Your task to perform on an android device: turn notification dots off Image 0: 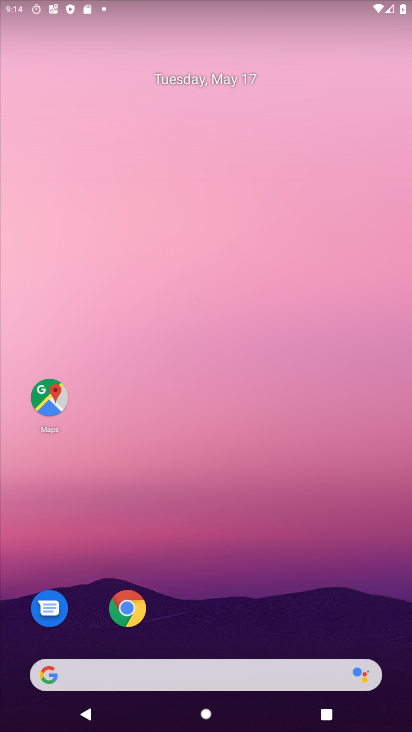
Step 0: drag from (332, 574) to (342, 58)
Your task to perform on an android device: turn notification dots off Image 1: 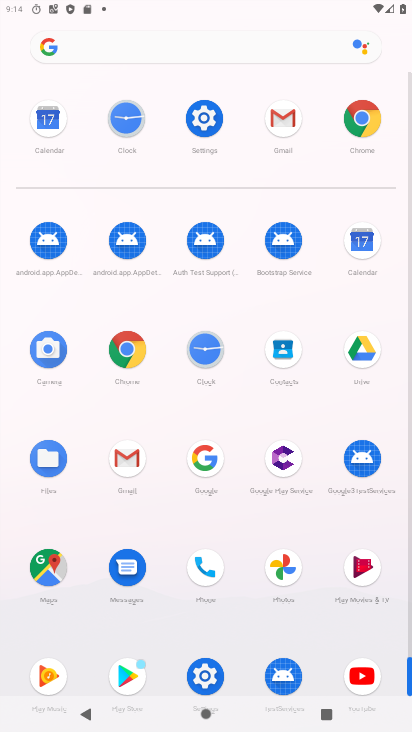
Step 1: click (214, 108)
Your task to perform on an android device: turn notification dots off Image 2: 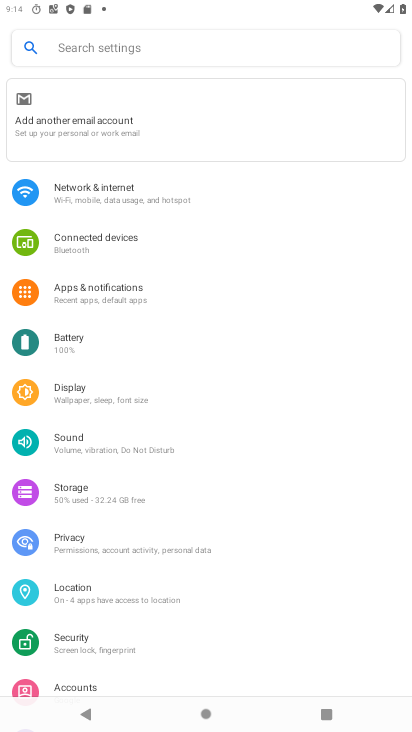
Step 2: drag from (231, 647) to (243, 232)
Your task to perform on an android device: turn notification dots off Image 3: 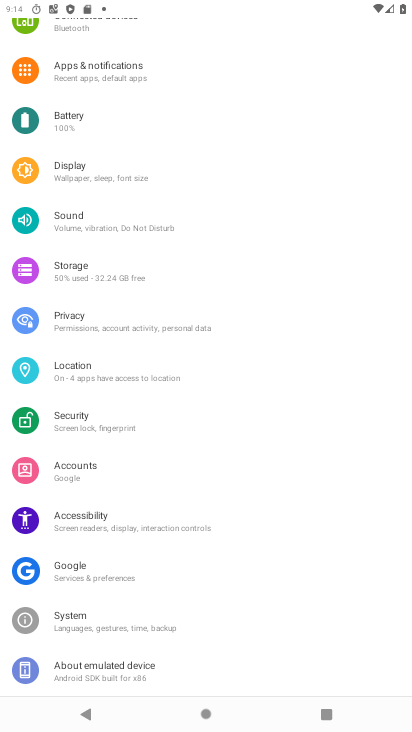
Step 3: drag from (190, 459) to (298, 179)
Your task to perform on an android device: turn notification dots off Image 4: 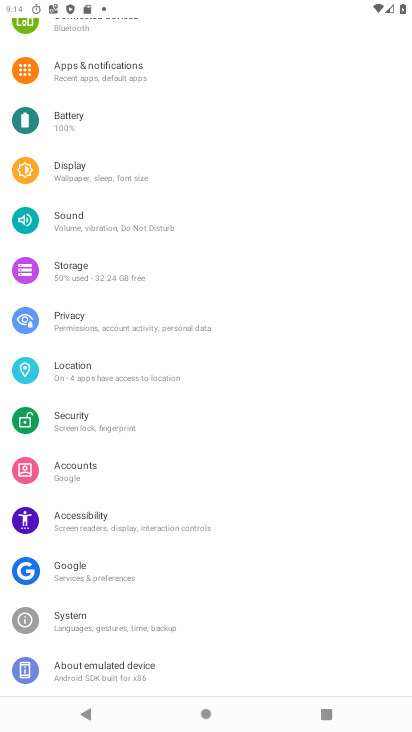
Step 4: drag from (298, 179) to (302, 430)
Your task to perform on an android device: turn notification dots off Image 5: 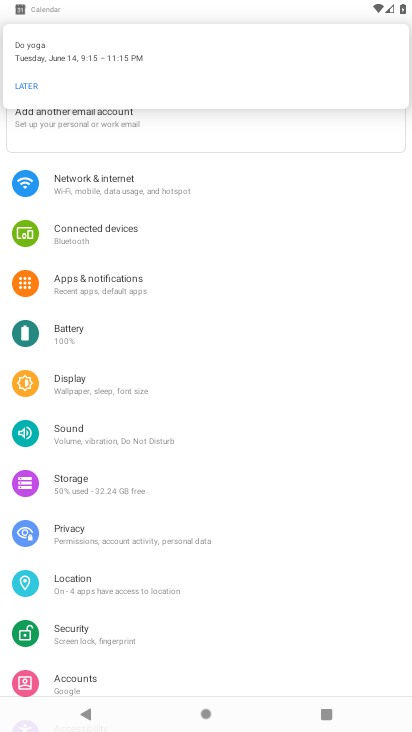
Step 5: drag from (235, 644) to (247, 264)
Your task to perform on an android device: turn notification dots off Image 6: 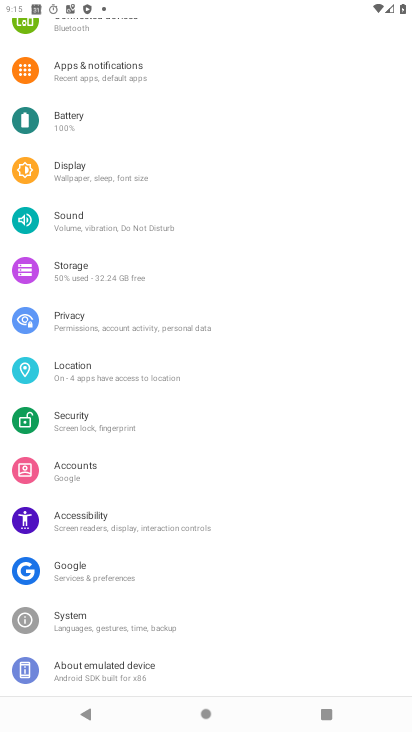
Step 6: drag from (235, 249) to (236, 471)
Your task to perform on an android device: turn notification dots off Image 7: 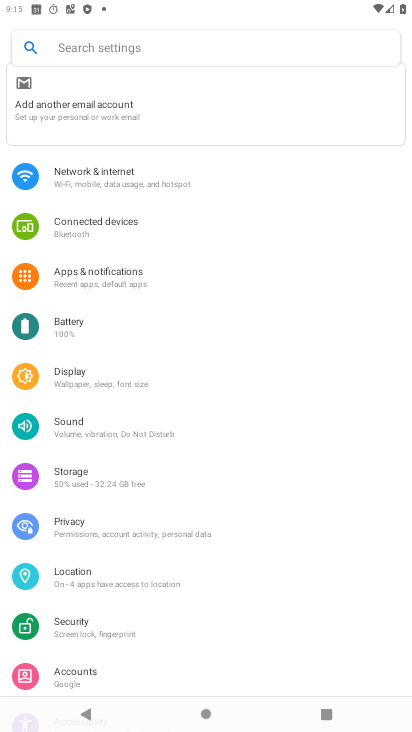
Step 7: click (74, 260)
Your task to perform on an android device: turn notification dots off Image 8: 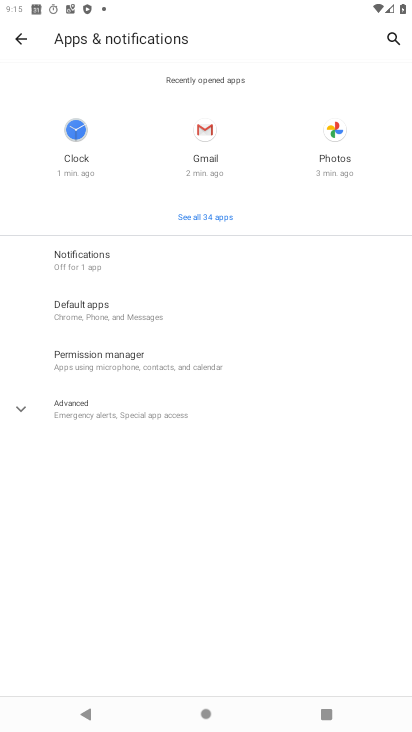
Step 8: click (92, 262)
Your task to perform on an android device: turn notification dots off Image 9: 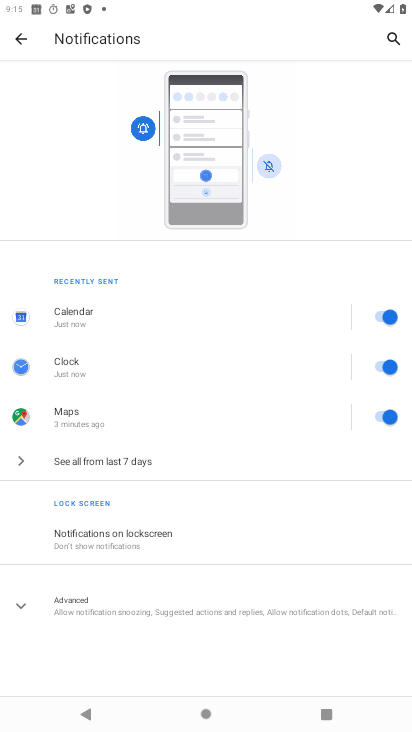
Step 9: click (130, 593)
Your task to perform on an android device: turn notification dots off Image 10: 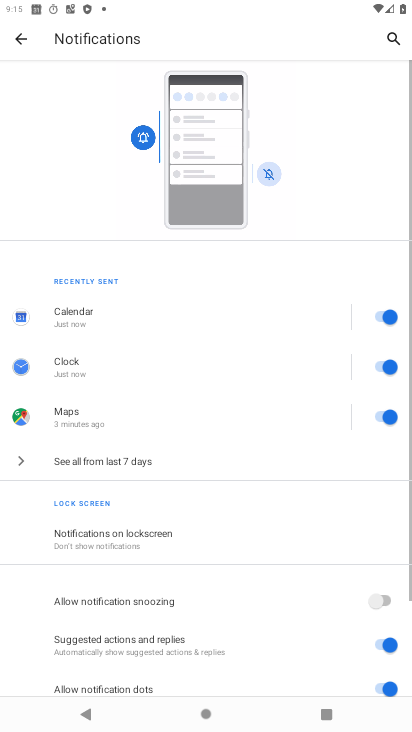
Step 10: drag from (139, 649) to (134, 311)
Your task to perform on an android device: turn notification dots off Image 11: 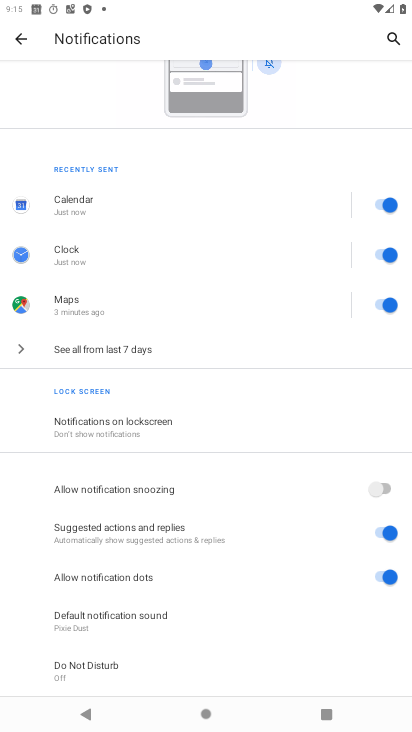
Step 11: click (382, 577)
Your task to perform on an android device: turn notification dots off Image 12: 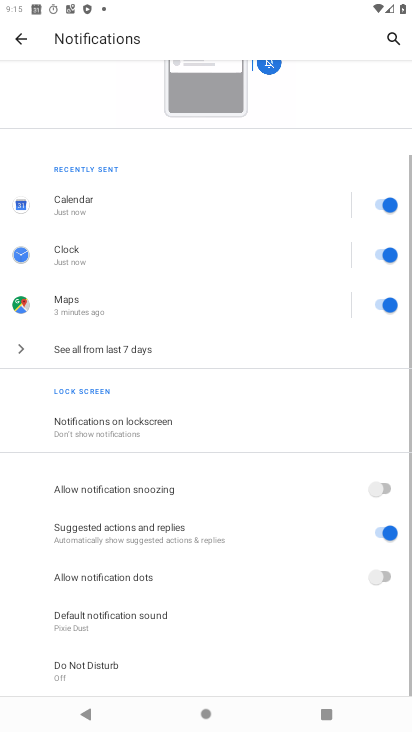
Step 12: task complete